Your task to perform on an android device: Add apple airpods pro to the cart on newegg.com, then select checkout. Image 0: 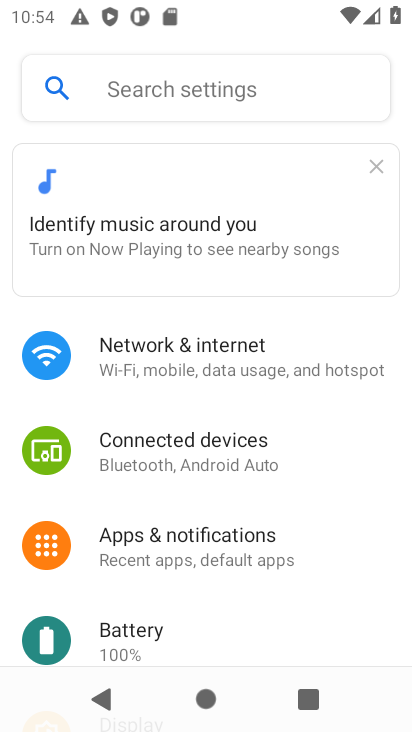
Step 0: press home button
Your task to perform on an android device: Add apple airpods pro to the cart on newegg.com, then select checkout. Image 1: 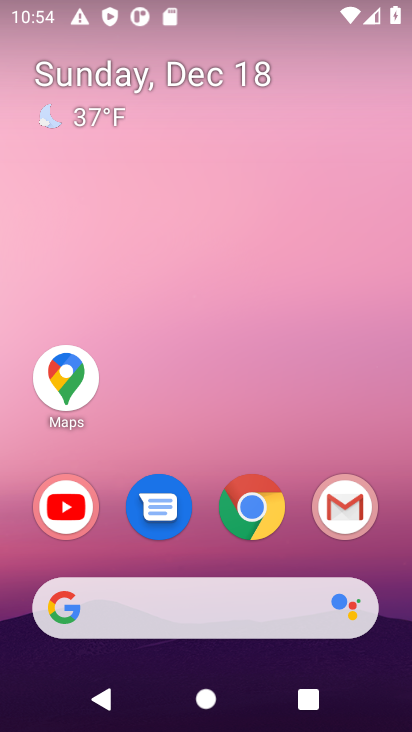
Step 1: click (250, 506)
Your task to perform on an android device: Add apple airpods pro to the cart on newegg.com, then select checkout. Image 2: 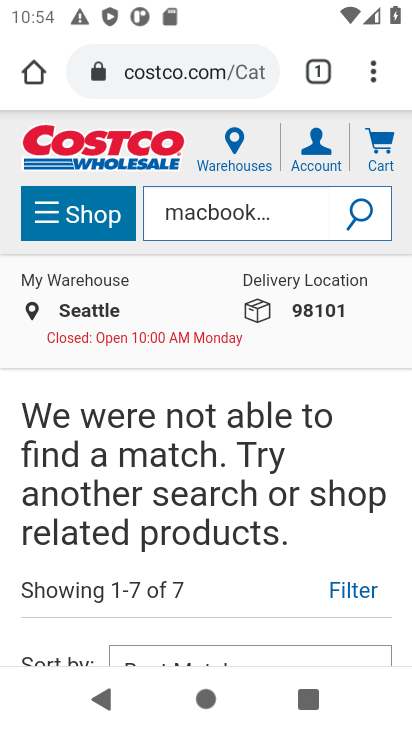
Step 2: click (161, 72)
Your task to perform on an android device: Add apple airpods pro to the cart on newegg.com, then select checkout. Image 3: 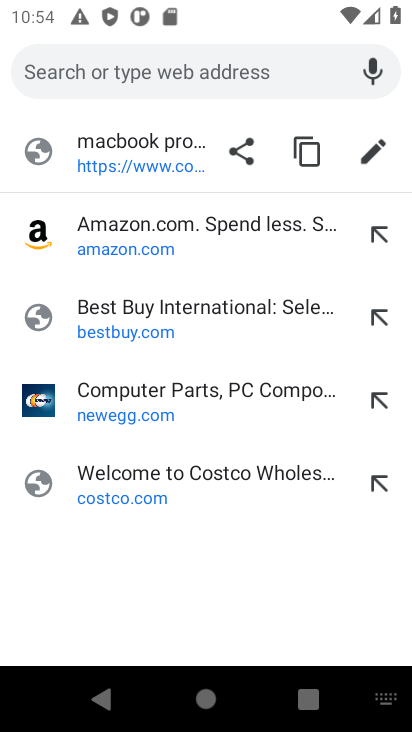
Step 3: click (100, 400)
Your task to perform on an android device: Add apple airpods pro to the cart on newegg.com, then select checkout. Image 4: 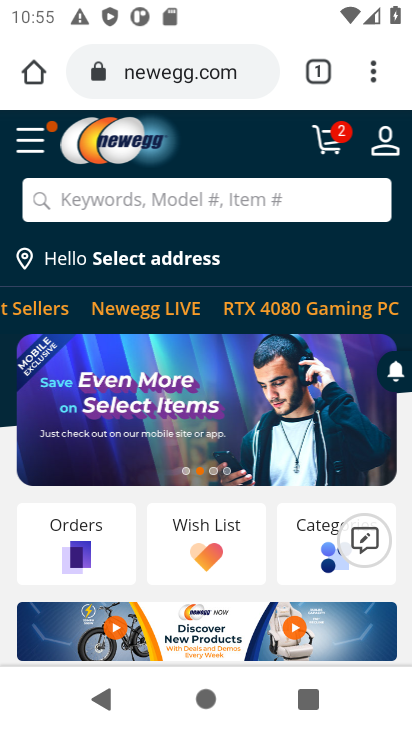
Step 4: click (96, 192)
Your task to perform on an android device: Add apple airpods pro to the cart on newegg.com, then select checkout. Image 5: 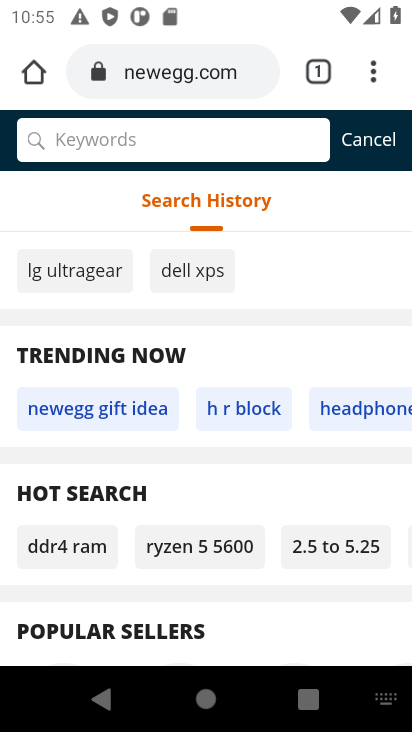
Step 5: type "apple airpods pro"
Your task to perform on an android device: Add apple airpods pro to the cart on newegg.com, then select checkout. Image 6: 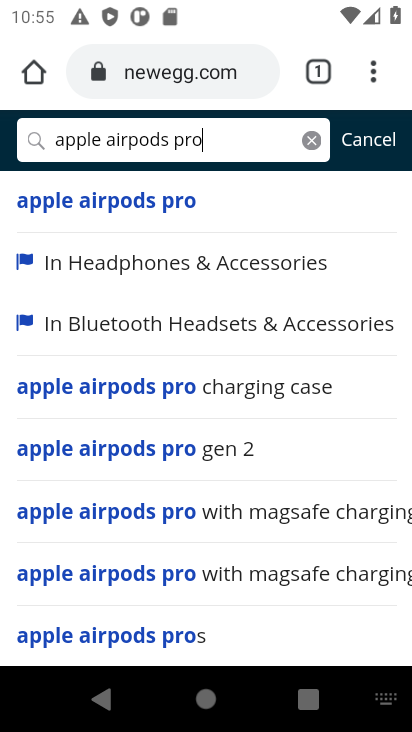
Step 6: click (91, 206)
Your task to perform on an android device: Add apple airpods pro to the cart on newegg.com, then select checkout. Image 7: 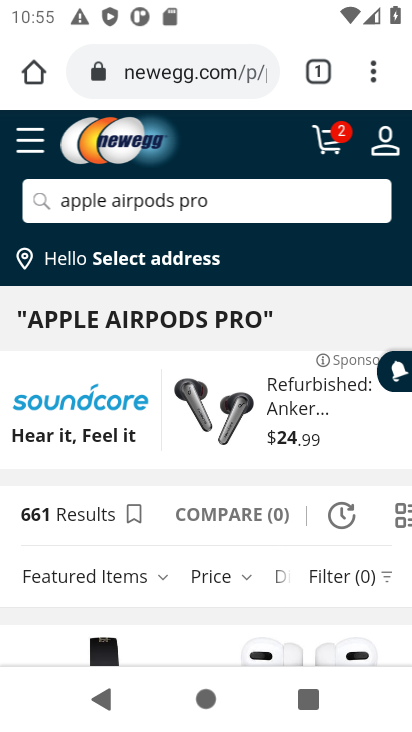
Step 7: drag from (180, 546) to (184, 269)
Your task to perform on an android device: Add apple airpods pro to the cart on newegg.com, then select checkout. Image 8: 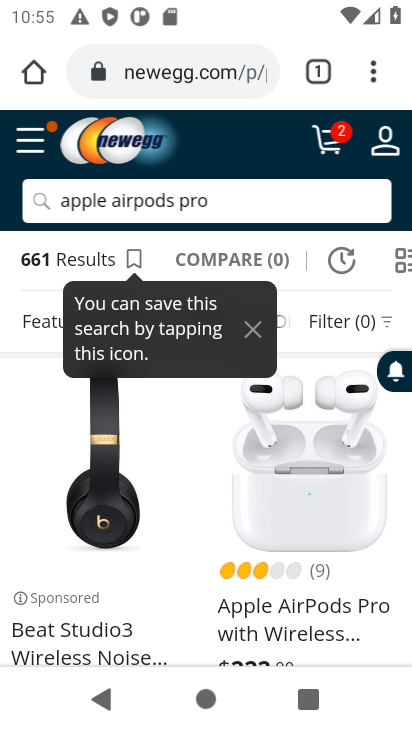
Step 8: drag from (176, 573) to (217, 348)
Your task to perform on an android device: Add apple airpods pro to the cart on newegg.com, then select checkout. Image 9: 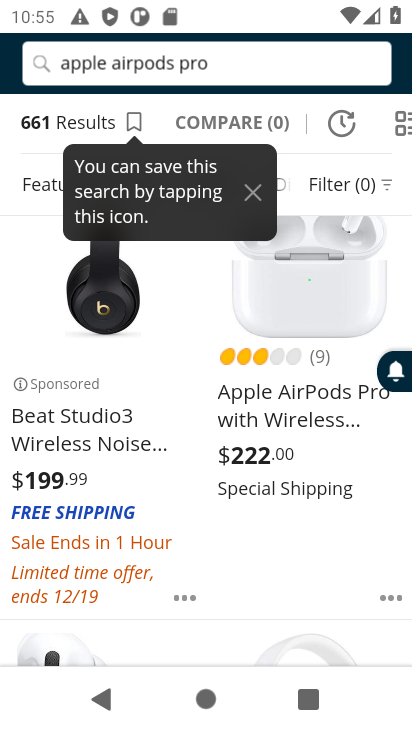
Step 9: click (328, 401)
Your task to perform on an android device: Add apple airpods pro to the cart on newegg.com, then select checkout. Image 10: 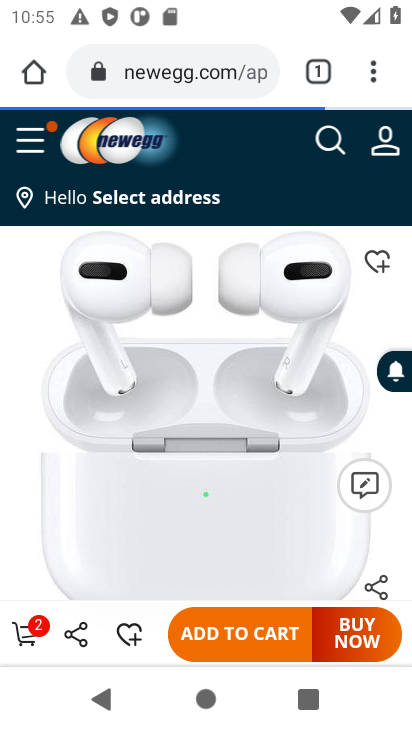
Step 10: click (225, 637)
Your task to perform on an android device: Add apple airpods pro to the cart on newegg.com, then select checkout. Image 11: 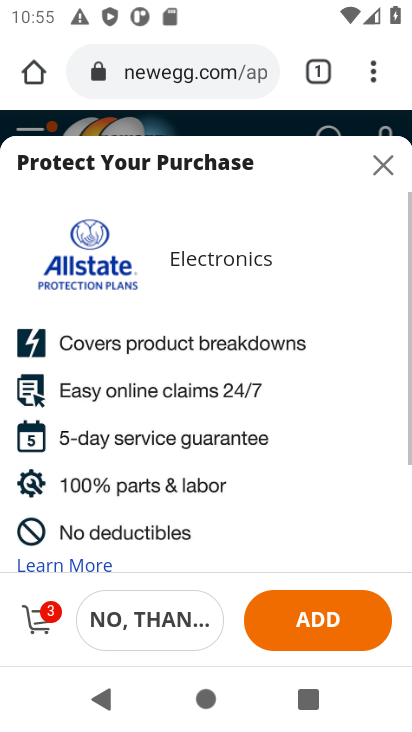
Step 11: click (37, 620)
Your task to perform on an android device: Add apple airpods pro to the cart on newegg.com, then select checkout. Image 12: 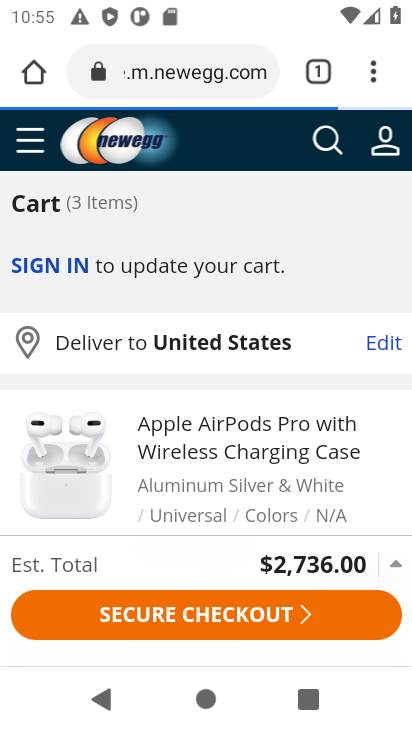
Step 12: click (41, 616)
Your task to perform on an android device: Add apple airpods pro to the cart on newegg.com, then select checkout. Image 13: 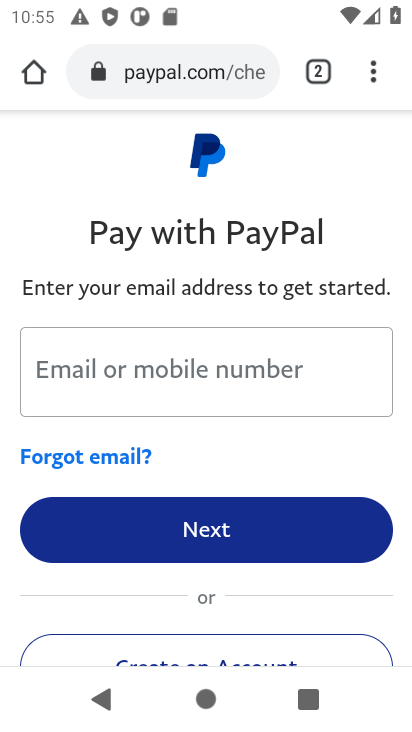
Step 13: task complete